Your task to perform on an android device: Open Google Chrome and open the bookmarks view Image 0: 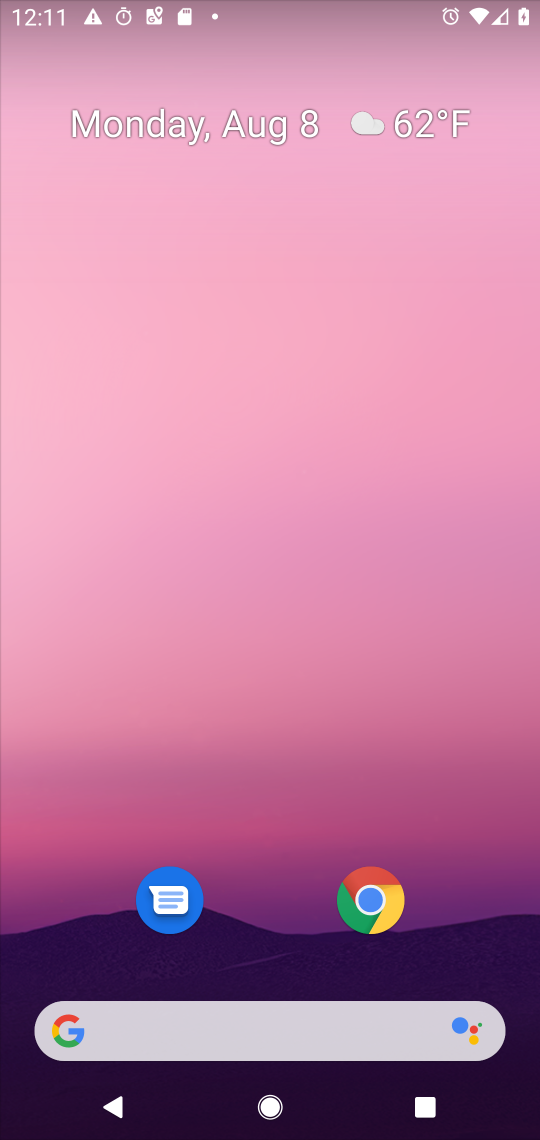
Step 0: press home button
Your task to perform on an android device: Open Google Chrome and open the bookmarks view Image 1: 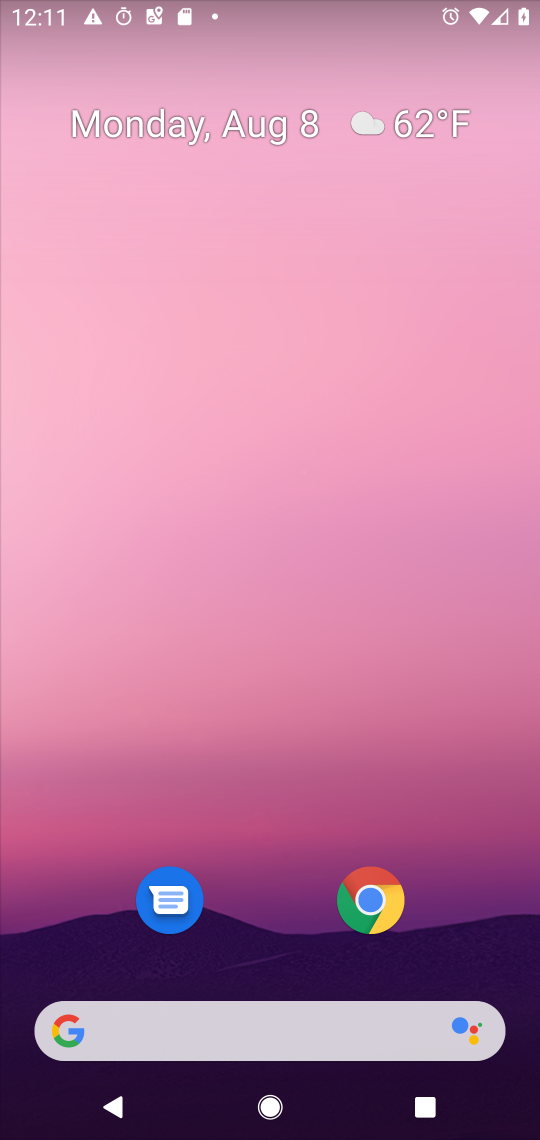
Step 1: click (364, 900)
Your task to perform on an android device: Open Google Chrome and open the bookmarks view Image 2: 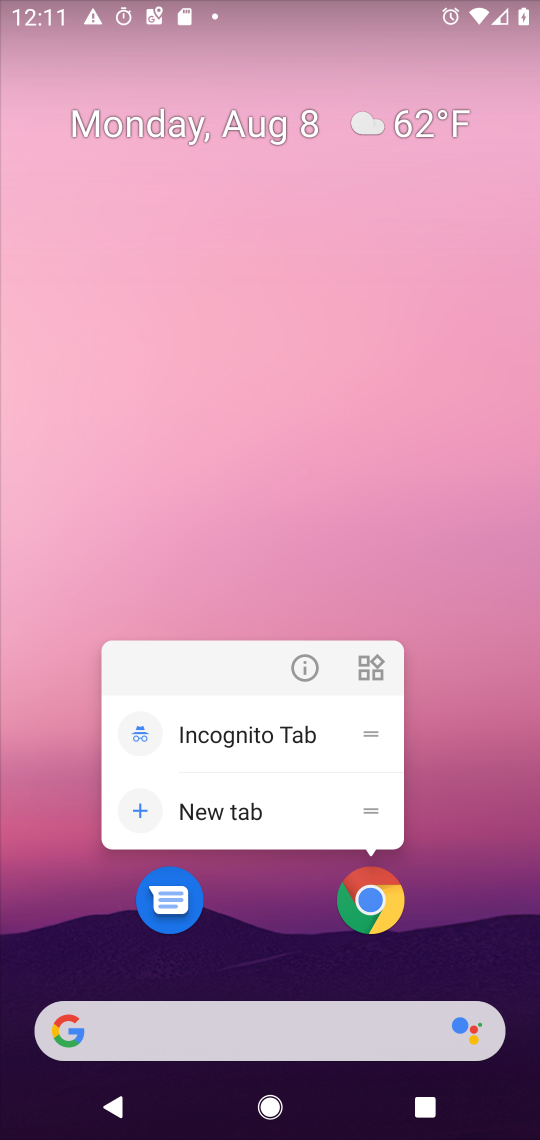
Step 2: click (369, 895)
Your task to perform on an android device: Open Google Chrome and open the bookmarks view Image 3: 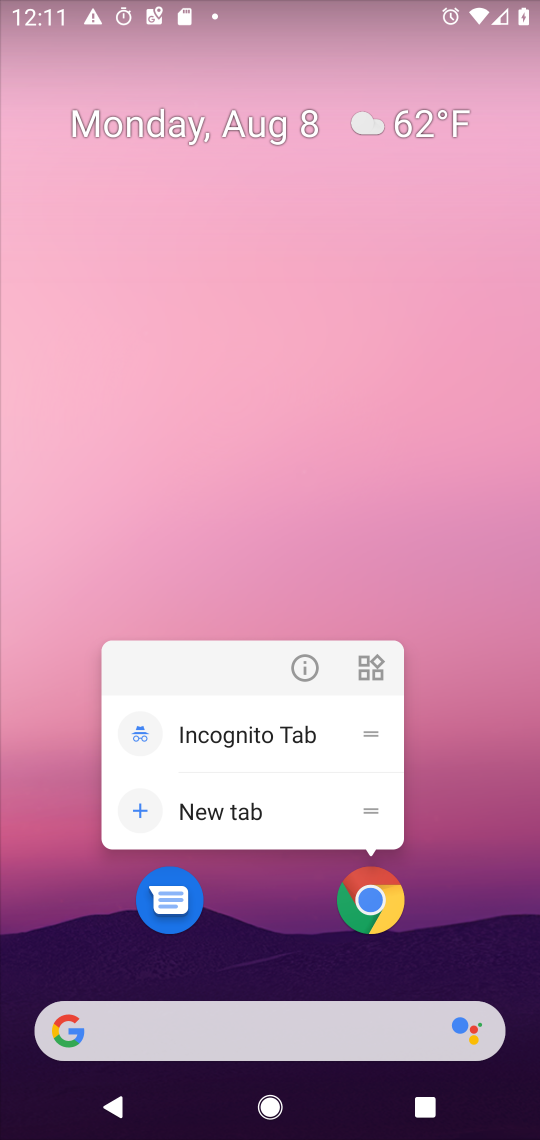
Step 3: click (469, 870)
Your task to perform on an android device: Open Google Chrome and open the bookmarks view Image 4: 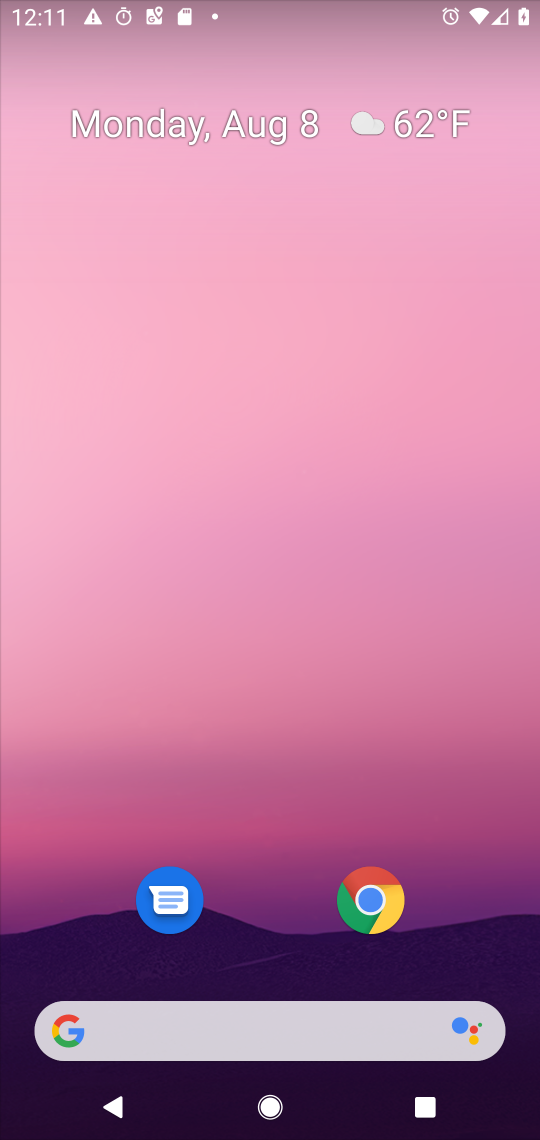
Step 4: click (372, 895)
Your task to perform on an android device: Open Google Chrome and open the bookmarks view Image 5: 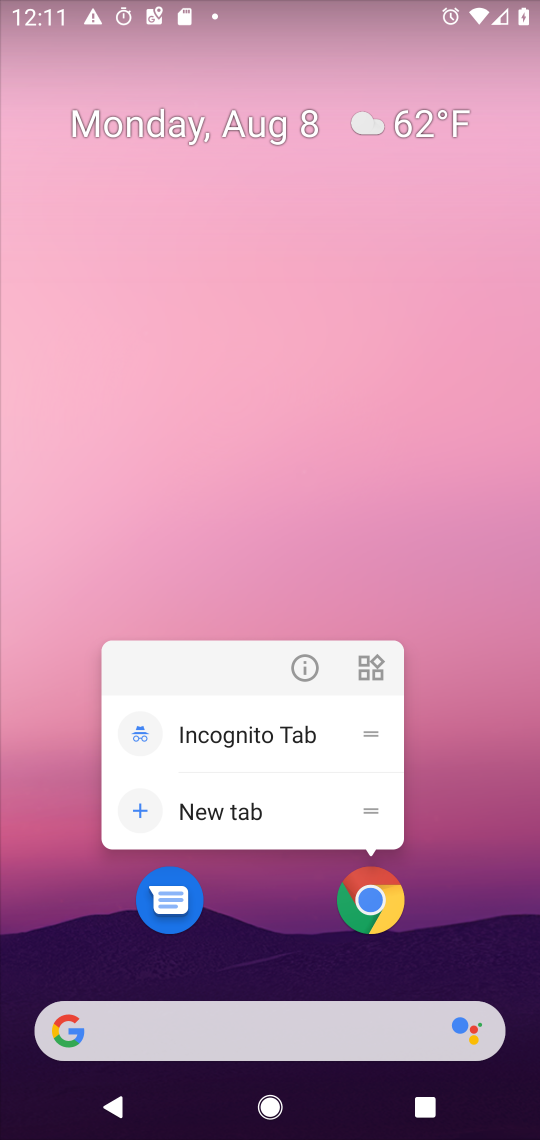
Step 5: click (465, 903)
Your task to perform on an android device: Open Google Chrome and open the bookmarks view Image 6: 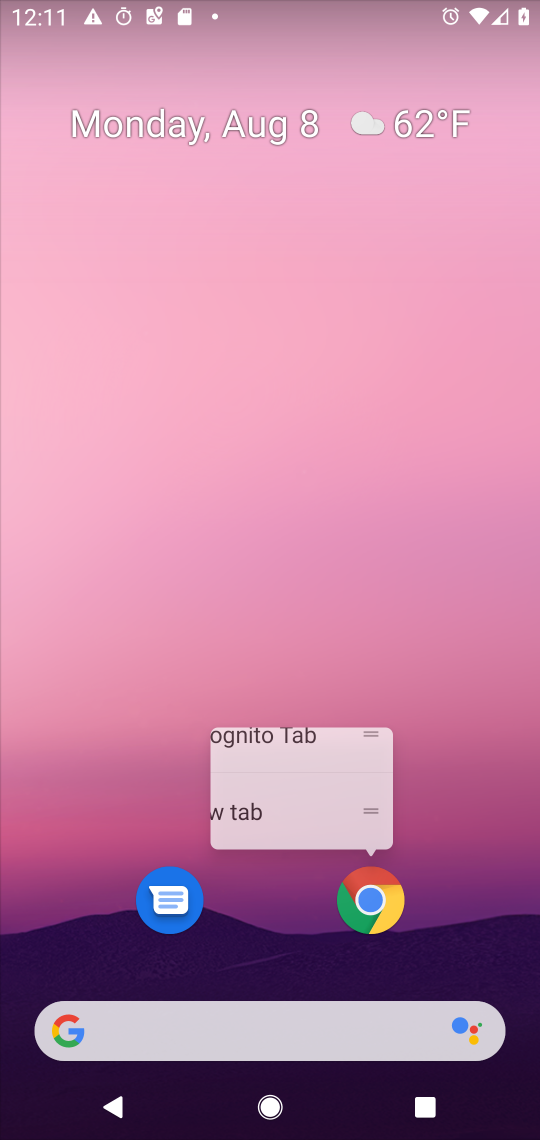
Step 6: drag from (471, 959) to (528, 1)
Your task to perform on an android device: Open Google Chrome and open the bookmarks view Image 7: 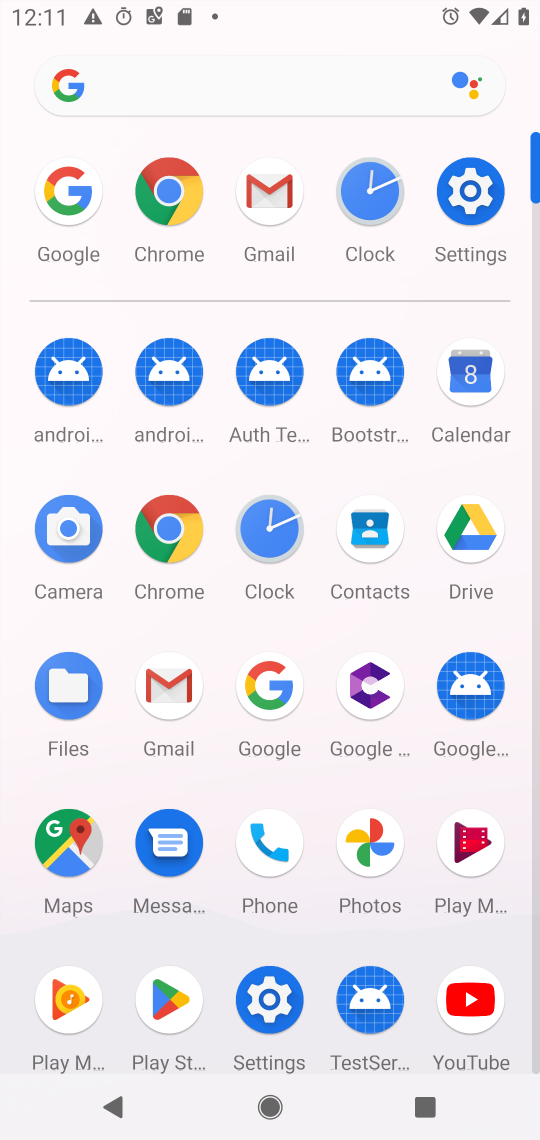
Step 7: click (165, 518)
Your task to perform on an android device: Open Google Chrome and open the bookmarks view Image 8: 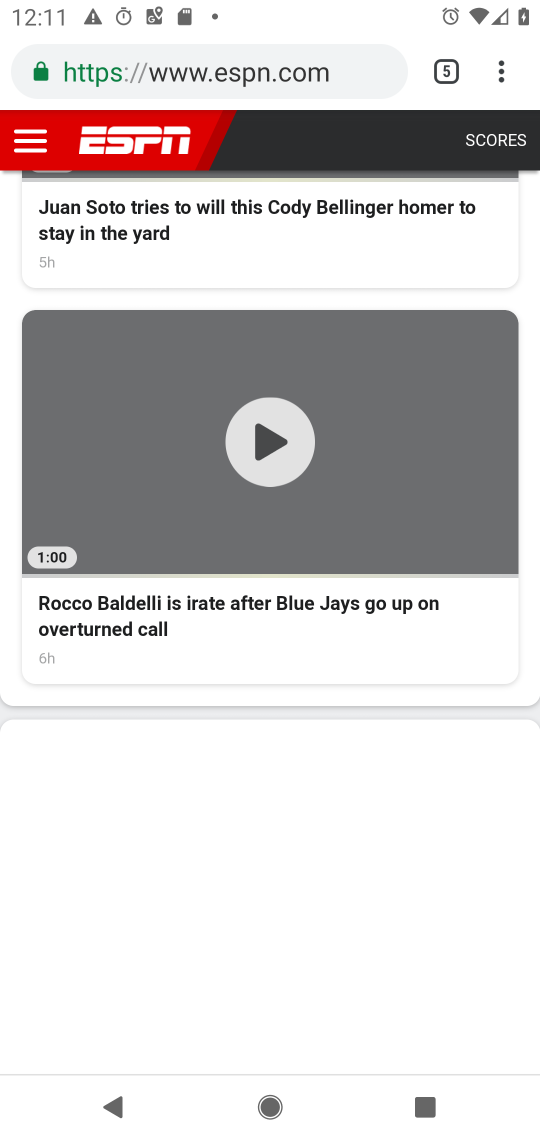
Step 8: click (502, 69)
Your task to perform on an android device: Open Google Chrome and open the bookmarks view Image 9: 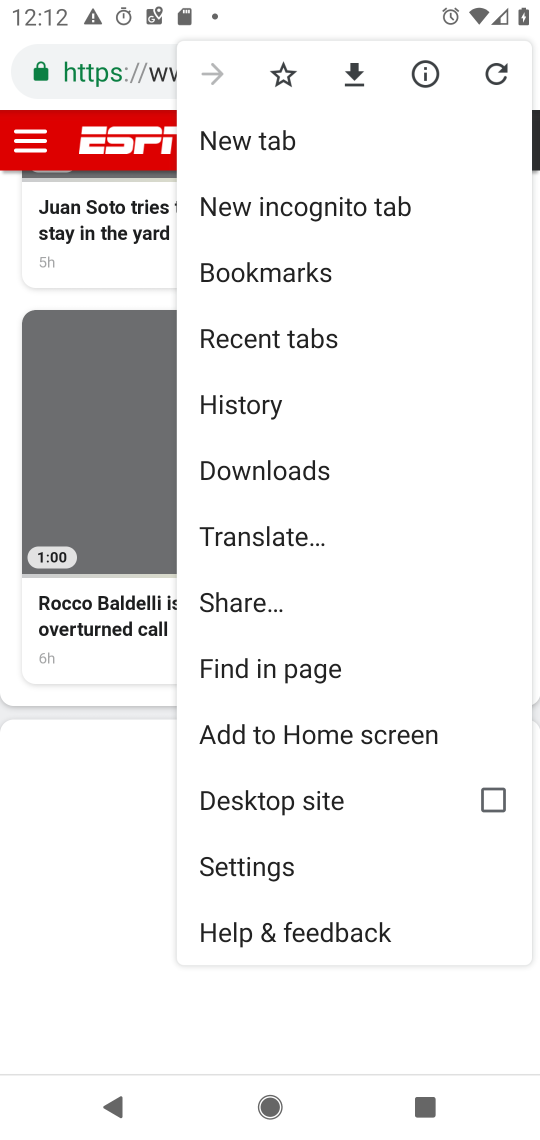
Step 9: click (315, 863)
Your task to perform on an android device: Open Google Chrome and open the bookmarks view Image 10: 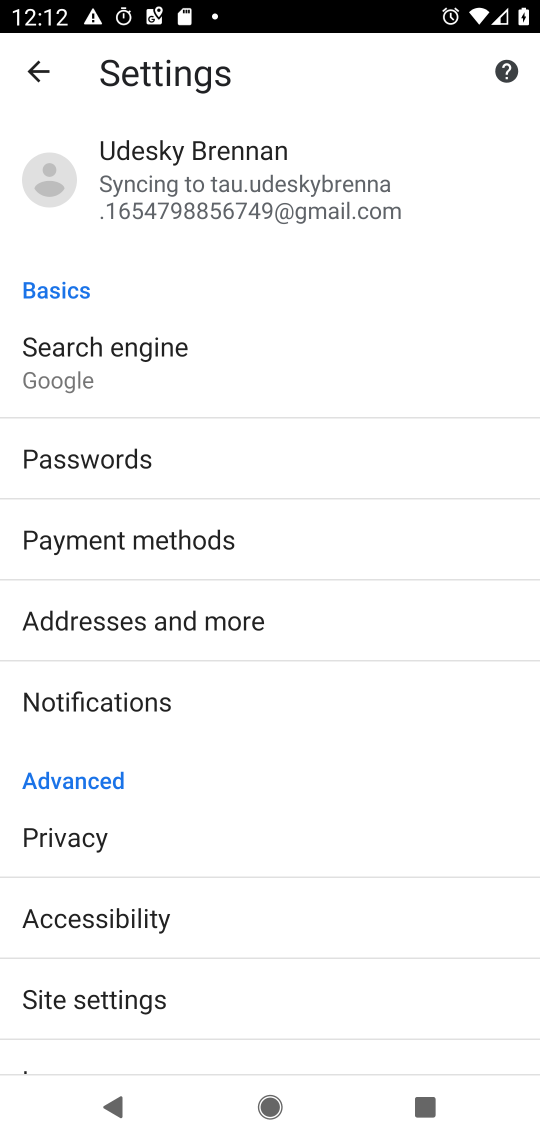
Step 10: click (33, 77)
Your task to perform on an android device: Open Google Chrome and open the bookmarks view Image 11: 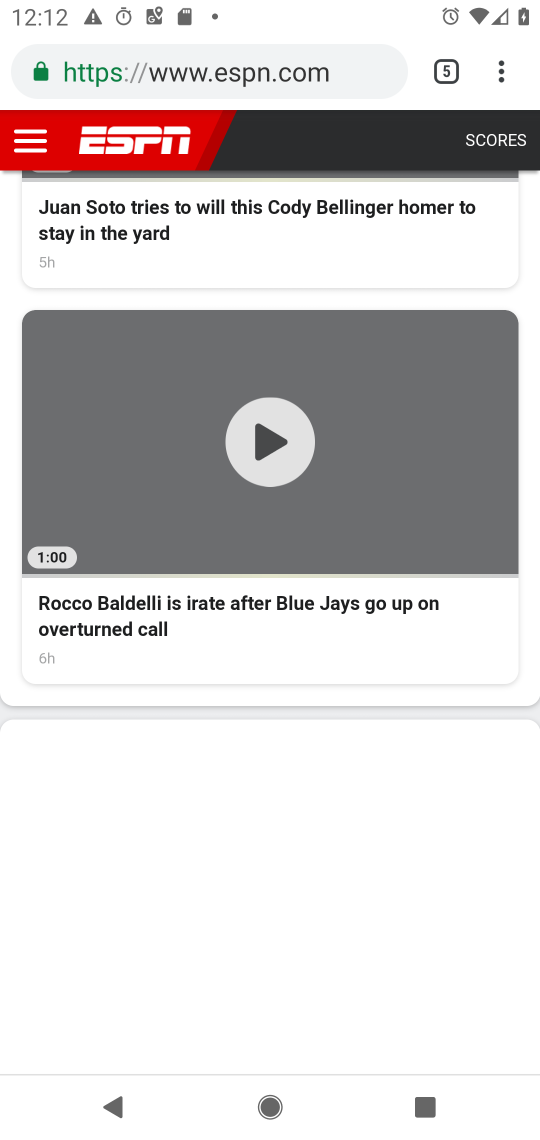
Step 11: click (501, 67)
Your task to perform on an android device: Open Google Chrome and open the bookmarks view Image 12: 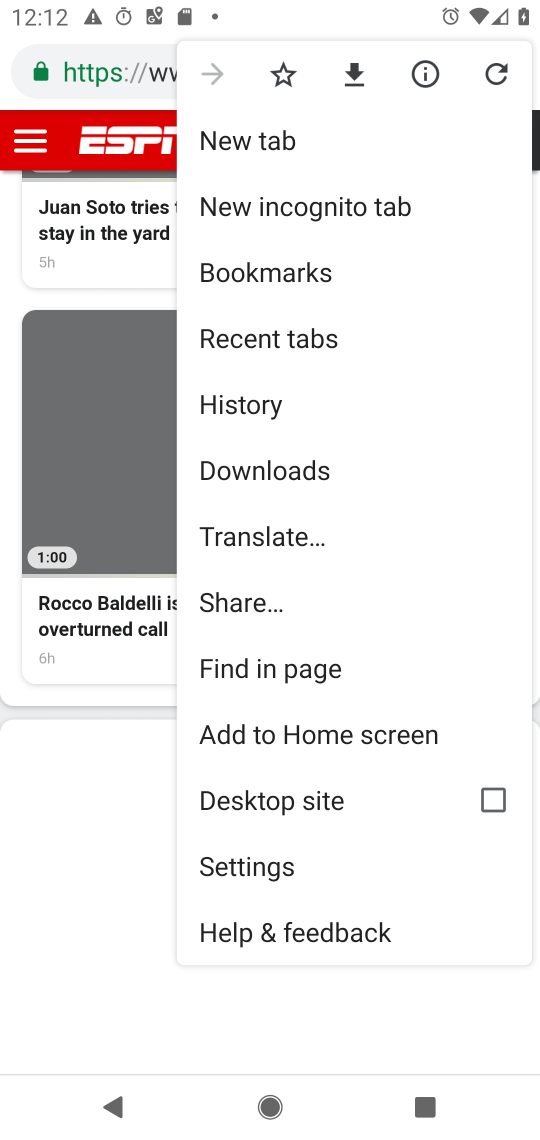
Step 12: click (353, 267)
Your task to perform on an android device: Open Google Chrome and open the bookmarks view Image 13: 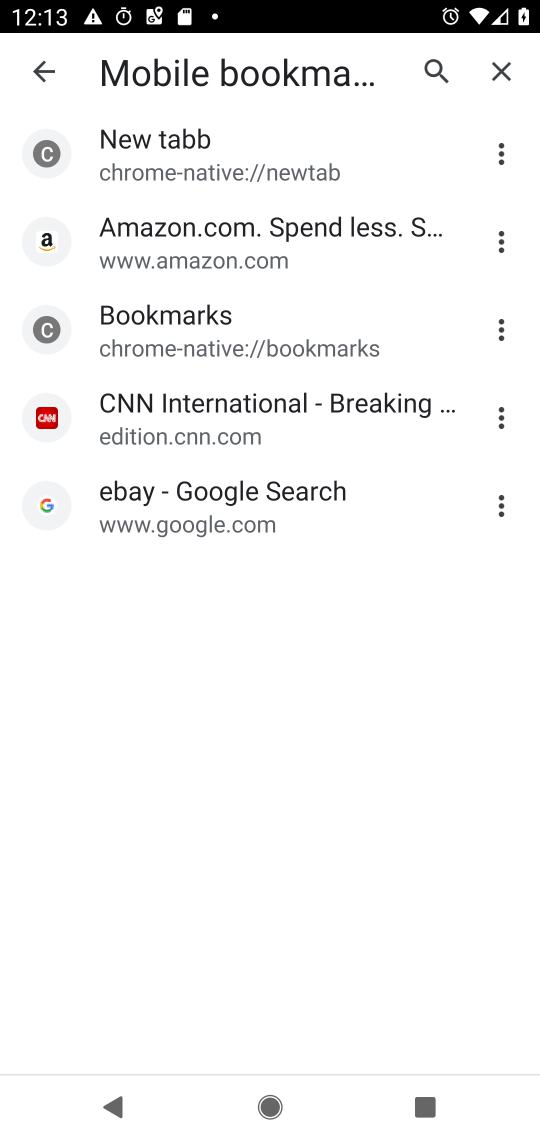
Step 13: click (249, 332)
Your task to perform on an android device: Open Google Chrome and open the bookmarks view Image 14: 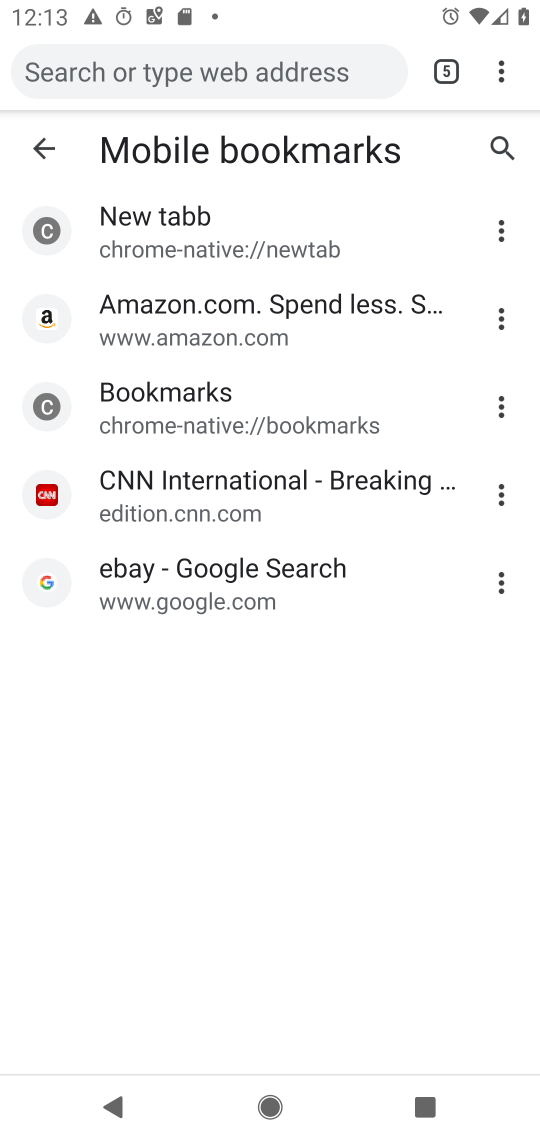
Step 14: task complete